Your task to perform on an android device: find photos in the google photos app Image 0: 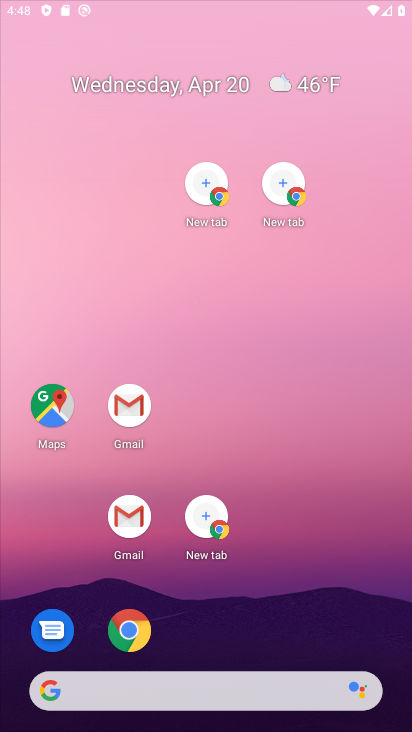
Step 0: click (57, 167)
Your task to perform on an android device: find photos in the google photos app Image 1: 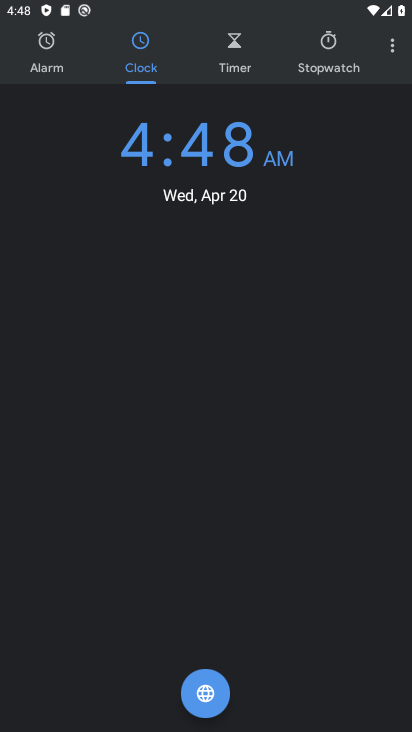
Step 1: press home button
Your task to perform on an android device: find photos in the google photos app Image 2: 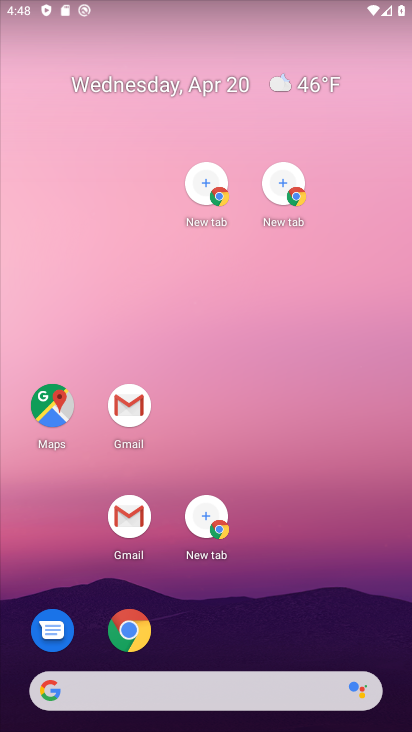
Step 2: drag from (244, 702) to (118, 107)
Your task to perform on an android device: find photos in the google photos app Image 3: 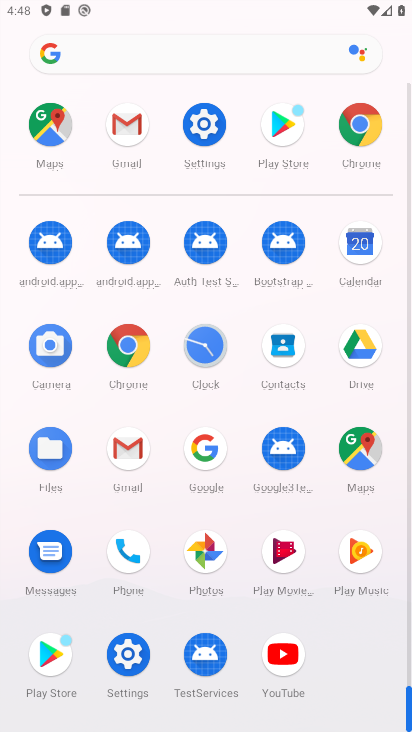
Step 3: drag from (291, 569) to (240, 395)
Your task to perform on an android device: find photos in the google photos app Image 4: 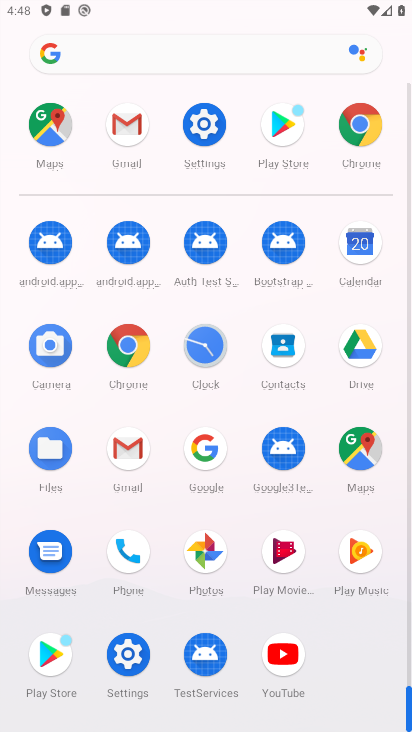
Step 4: click (200, 537)
Your task to perform on an android device: find photos in the google photos app Image 5: 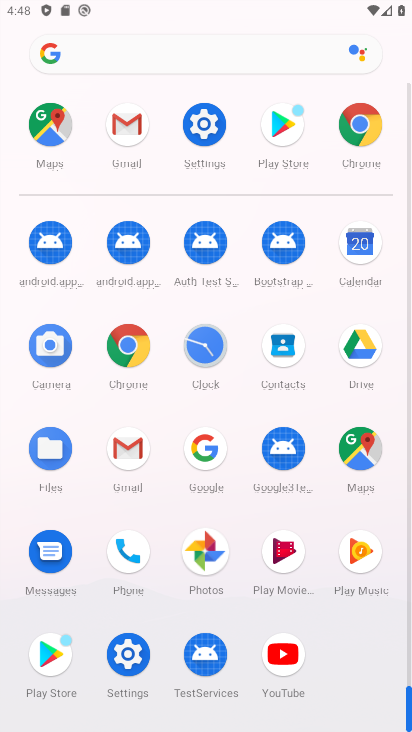
Step 5: click (199, 538)
Your task to perform on an android device: find photos in the google photos app Image 6: 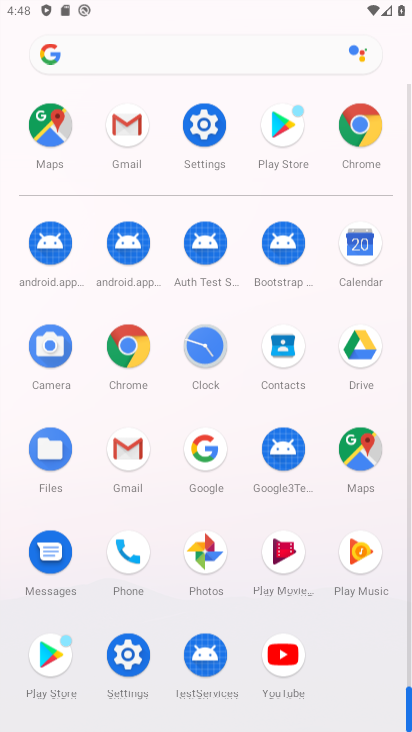
Step 6: click (221, 547)
Your task to perform on an android device: find photos in the google photos app Image 7: 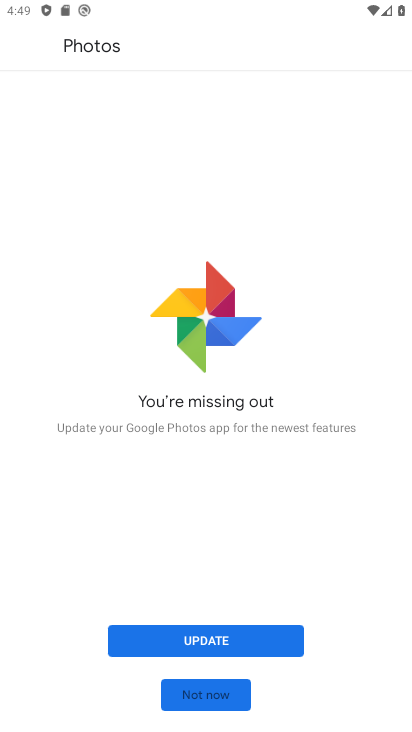
Step 7: click (221, 684)
Your task to perform on an android device: find photos in the google photos app Image 8: 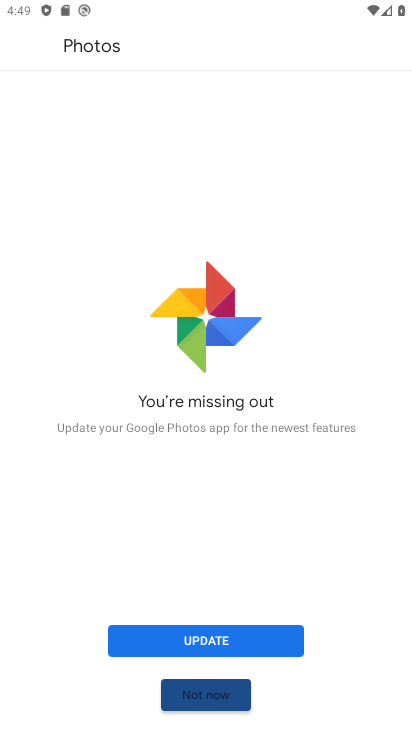
Step 8: click (220, 685)
Your task to perform on an android device: find photos in the google photos app Image 9: 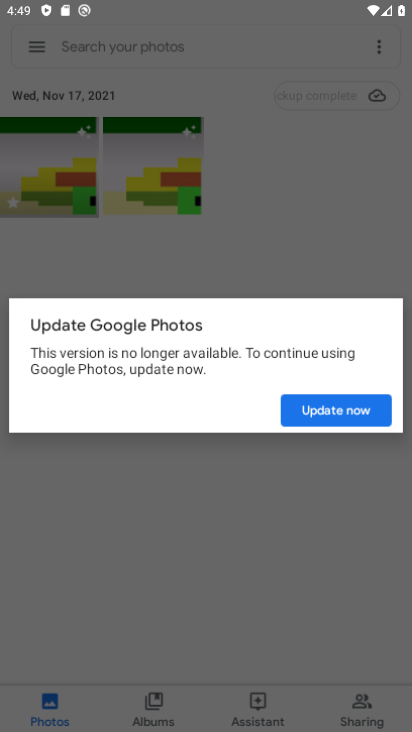
Step 9: click (211, 690)
Your task to perform on an android device: find photos in the google photos app Image 10: 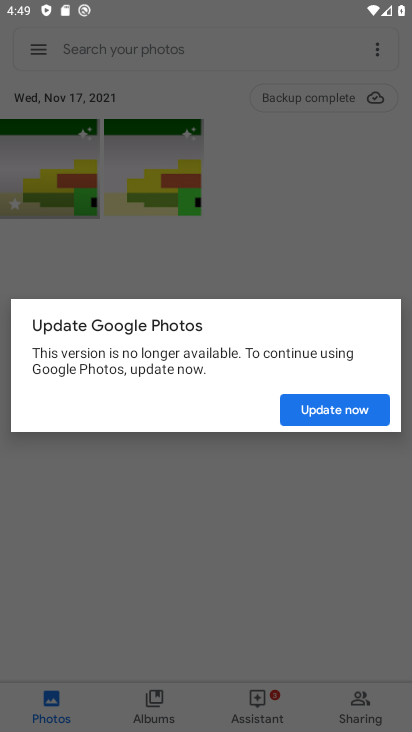
Step 10: click (350, 402)
Your task to perform on an android device: find photos in the google photos app Image 11: 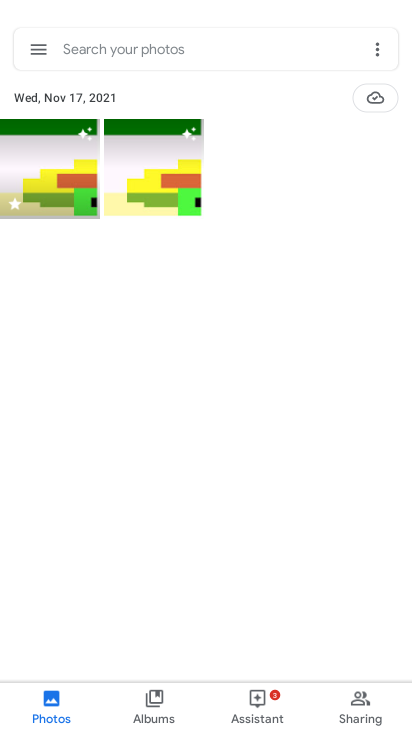
Step 11: press home button
Your task to perform on an android device: find photos in the google photos app Image 12: 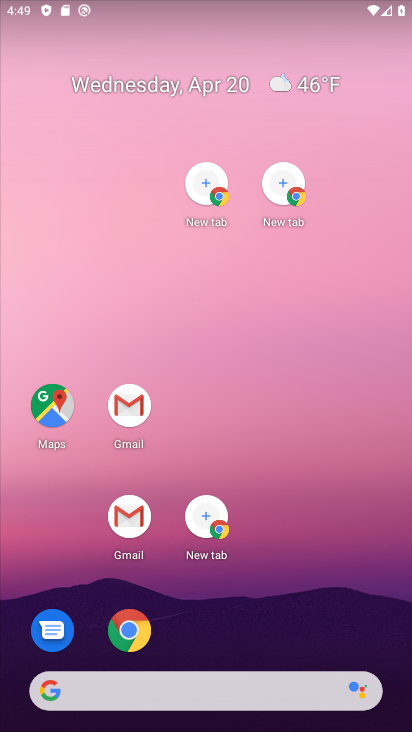
Step 12: drag from (295, 671) to (123, 42)
Your task to perform on an android device: find photos in the google photos app Image 13: 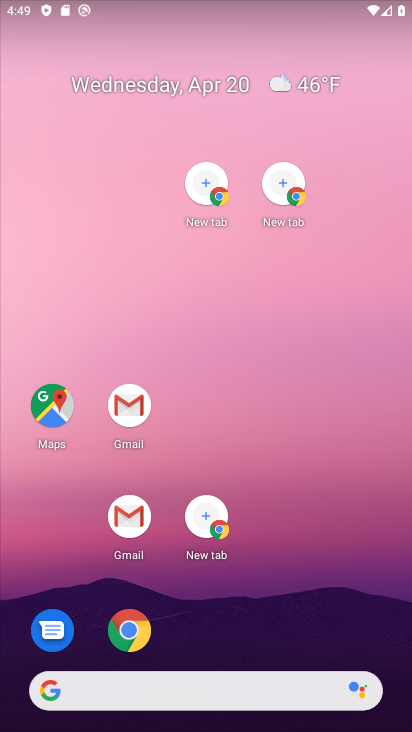
Step 13: drag from (326, 692) to (67, 22)
Your task to perform on an android device: find photos in the google photos app Image 14: 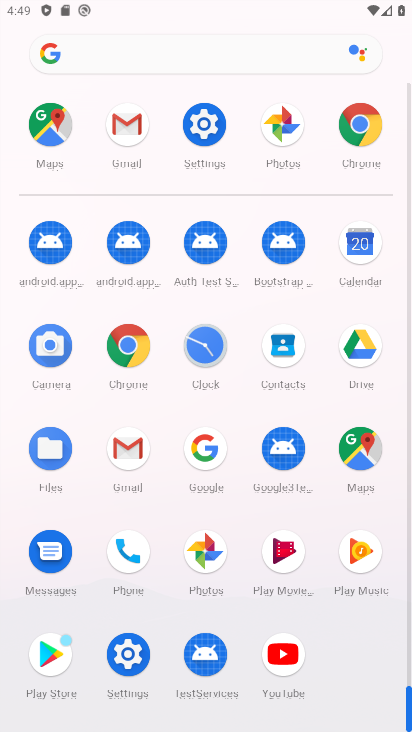
Step 14: click (208, 534)
Your task to perform on an android device: find photos in the google photos app Image 15: 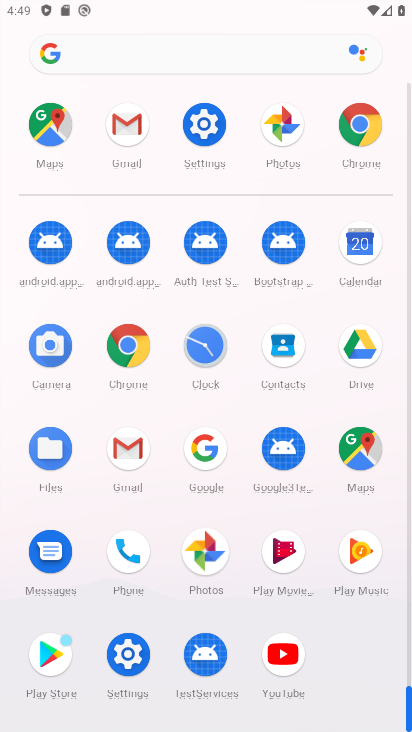
Step 15: click (208, 534)
Your task to perform on an android device: find photos in the google photos app Image 16: 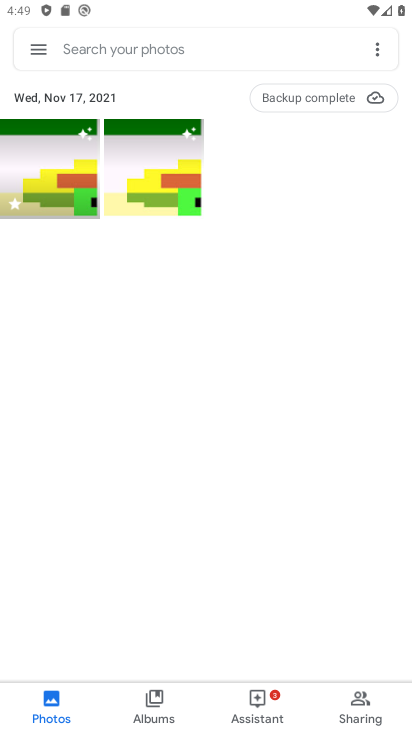
Step 16: click (315, 102)
Your task to perform on an android device: find photos in the google photos app Image 17: 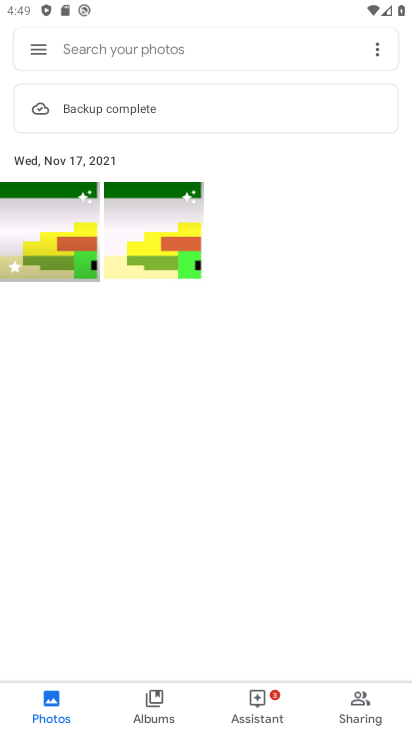
Step 17: task complete